Your task to perform on an android device: snooze an email in the gmail app Image 0: 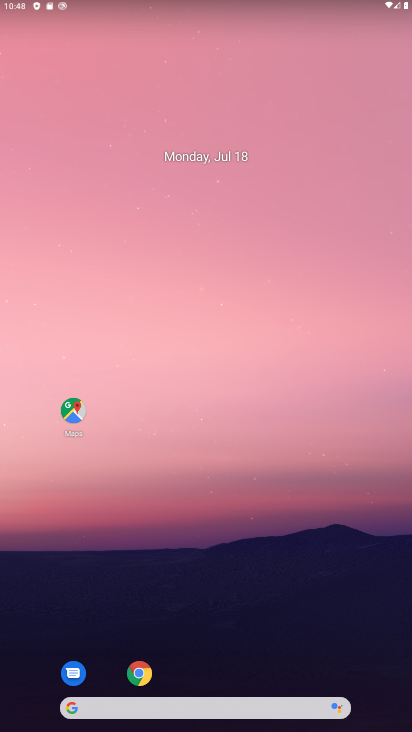
Step 0: press home button
Your task to perform on an android device: snooze an email in the gmail app Image 1: 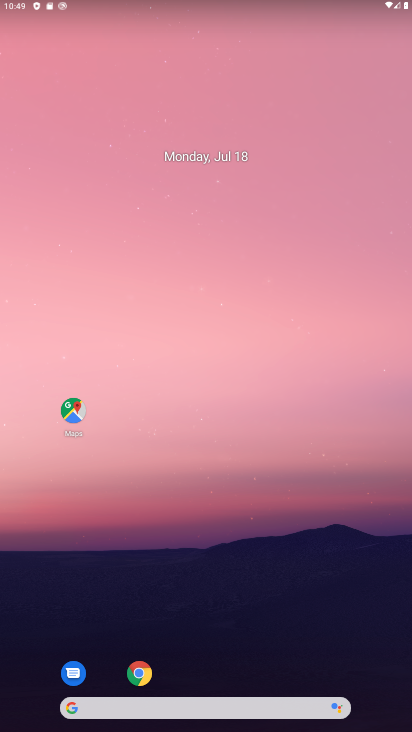
Step 1: drag from (215, 674) to (253, 26)
Your task to perform on an android device: snooze an email in the gmail app Image 2: 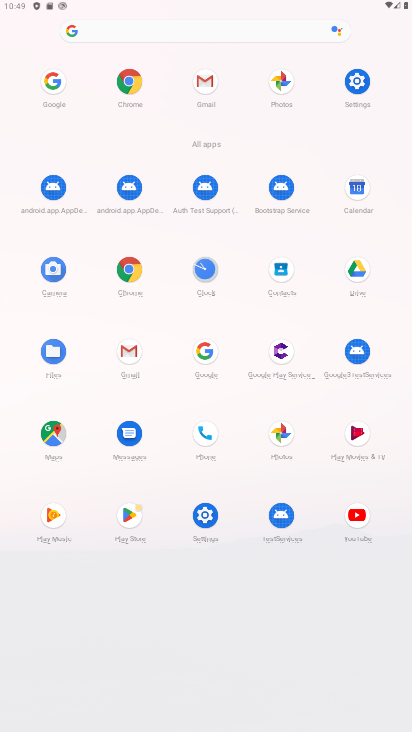
Step 2: click (128, 348)
Your task to perform on an android device: snooze an email in the gmail app Image 3: 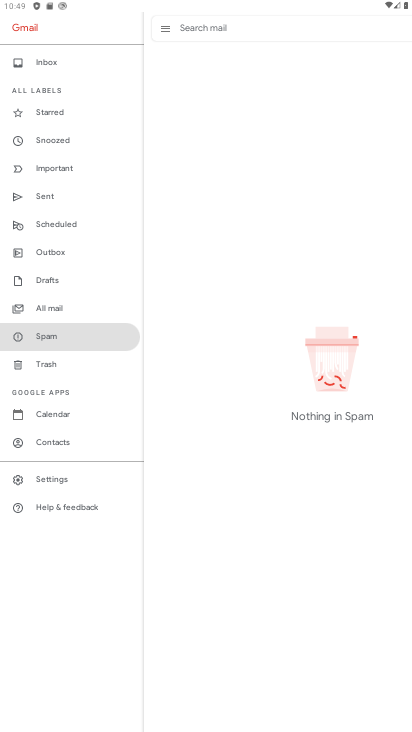
Step 3: click (52, 307)
Your task to perform on an android device: snooze an email in the gmail app Image 4: 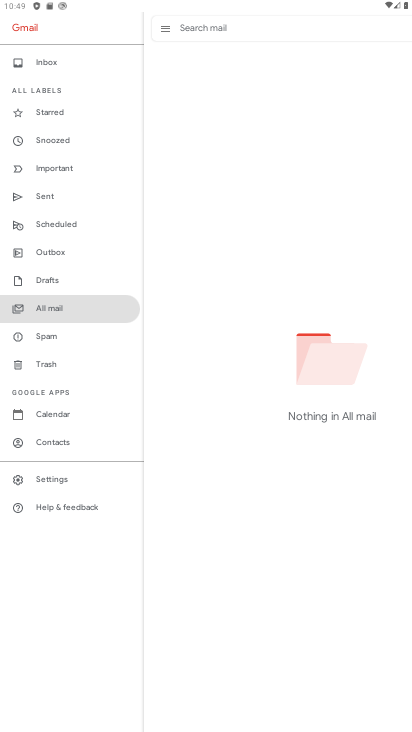
Step 4: task complete